Your task to perform on an android device: empty trash in the gmail app Image 0: 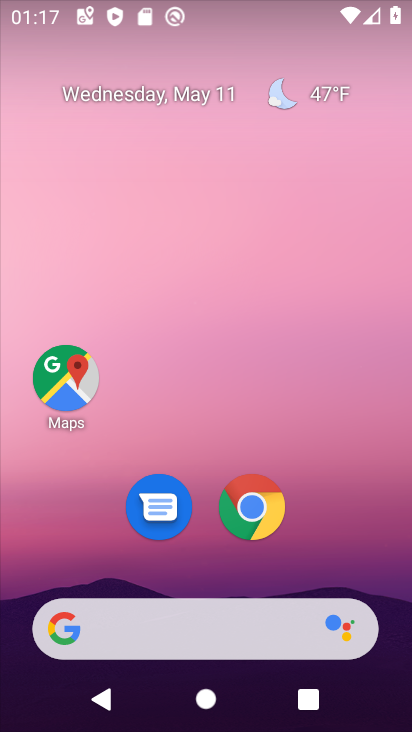
Step 0: drag from (341, 526) to (231, 27)
Your task to perform on an android device: empty trash in the gmail app Image 1: 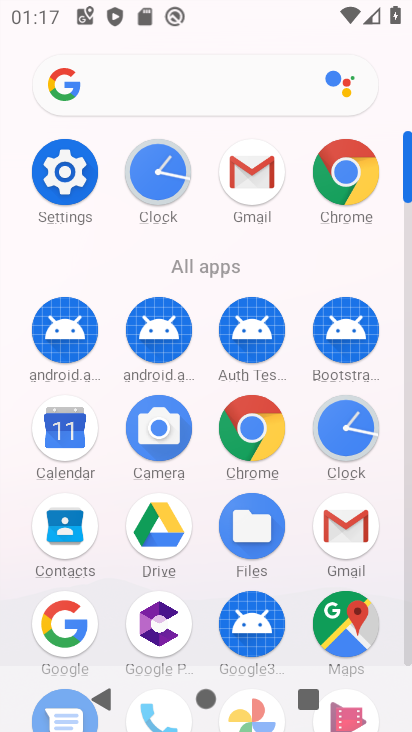
Step 1: click (243, 191)
Your task to perform on an android device: empty trash in the gmail app Image 2: 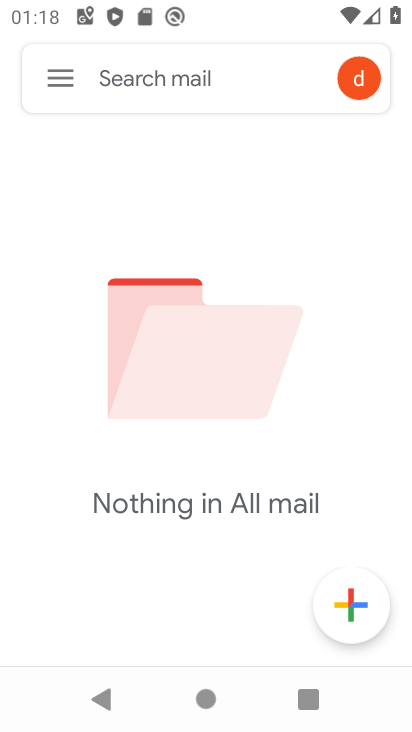
Step 2: click (54, 76)
Your task to perform on an android device: empty trash in the gmail app Image 3: 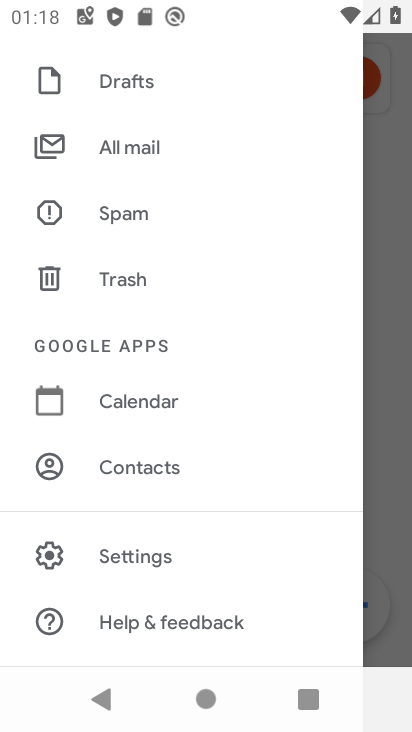
Step 3: click (124, 270)
Your task to perform on an android device: empty trash in the gmail app Image 4: 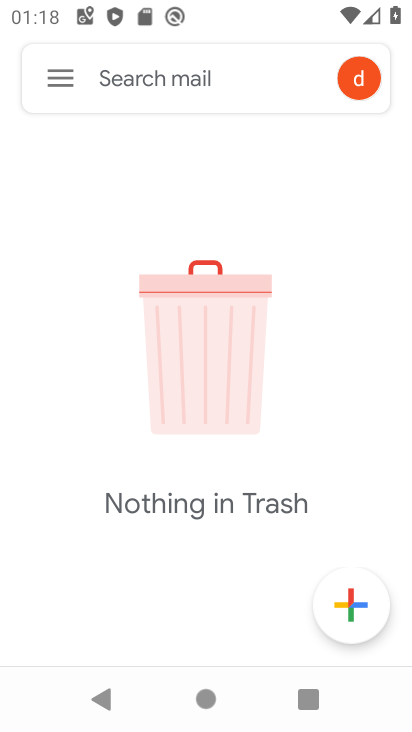
Step 4: task complete